Your task to perform on an android device: set default search engine in the chrome app Image 0: 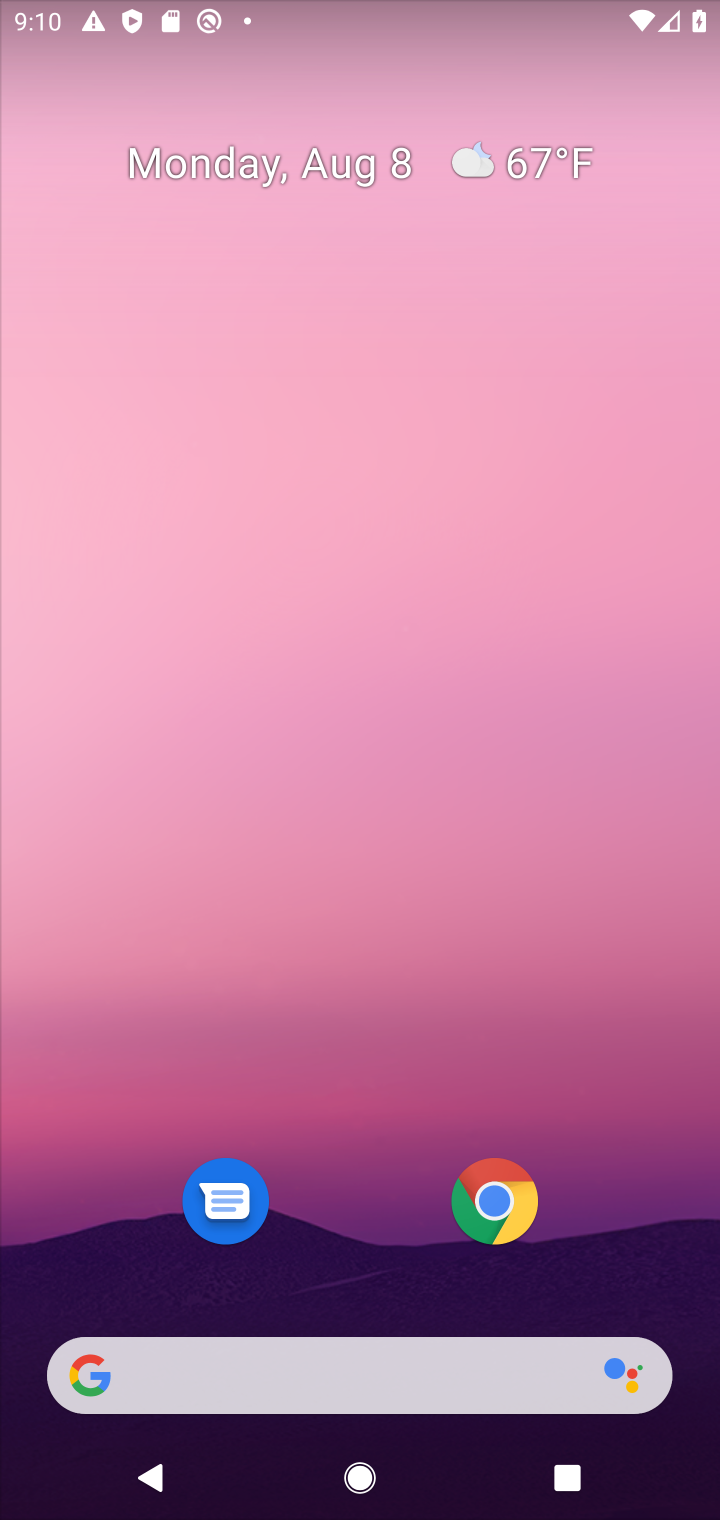
Step 0: press home button
Your task to perform on an android device: set default search engine in the chrome app Image 1: 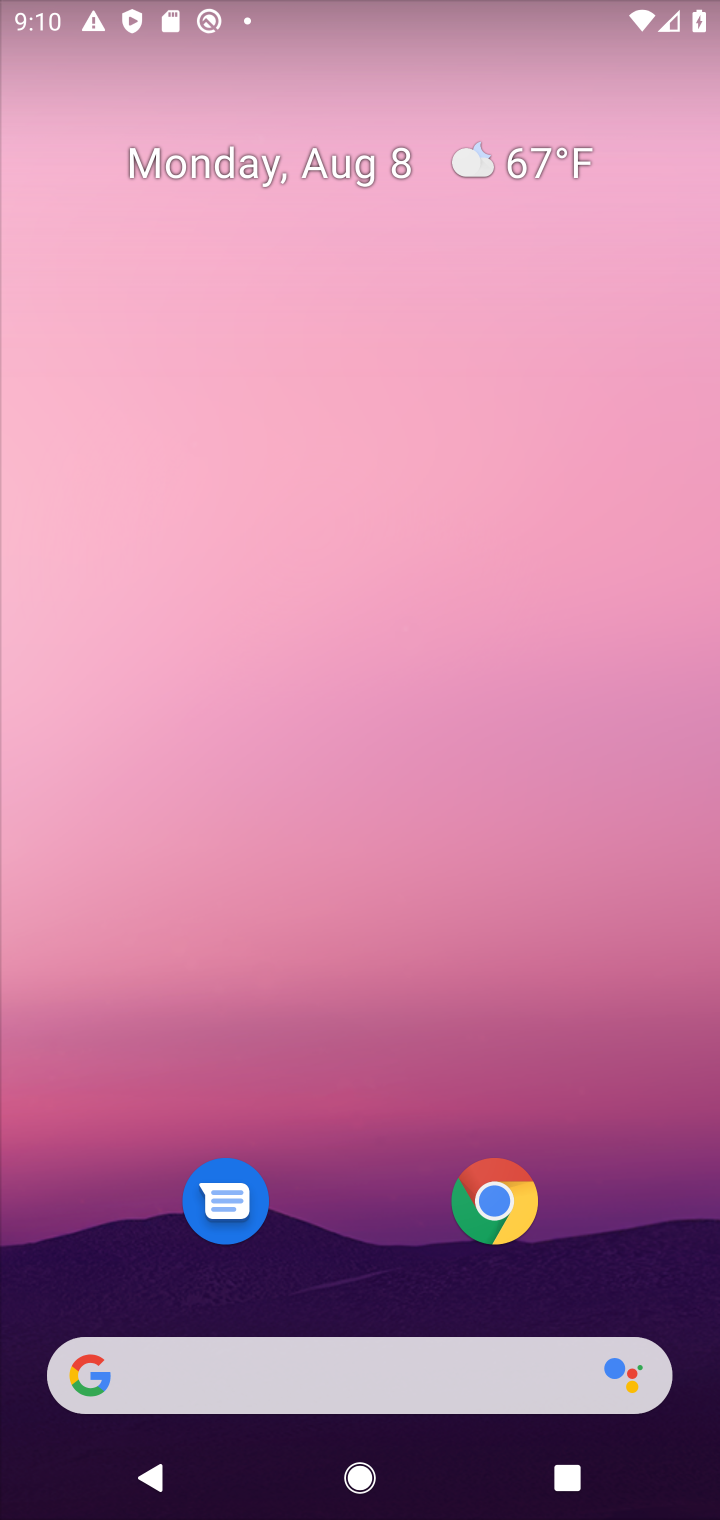
Step 1: drag from (347, 1083) to (342, 501)
Your task to perform on an android device: set default search engine in the chrome app Image 2: 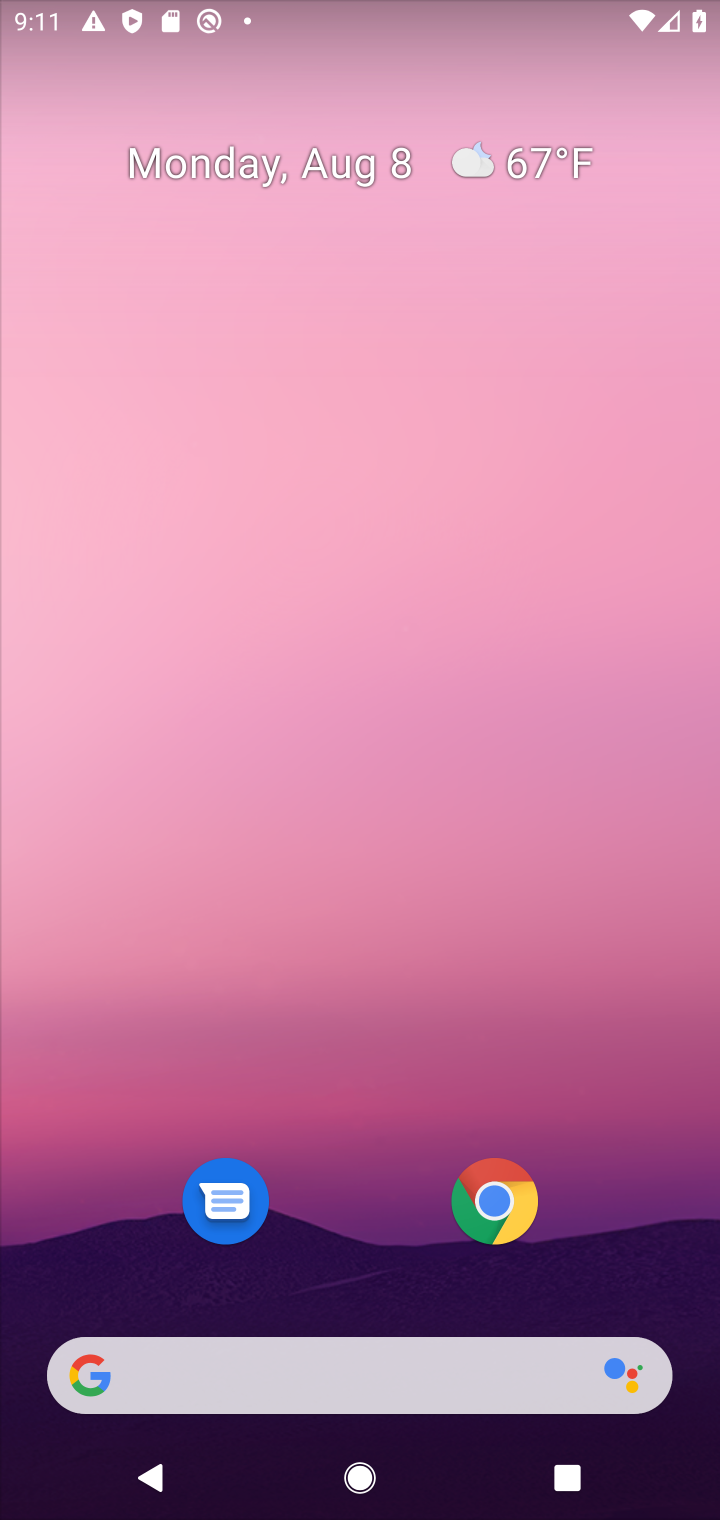
Step 2: drag from (362, 1280) to (368, 317)
Your task to perform on an android device: set default search engine in the chrome app Image 3: 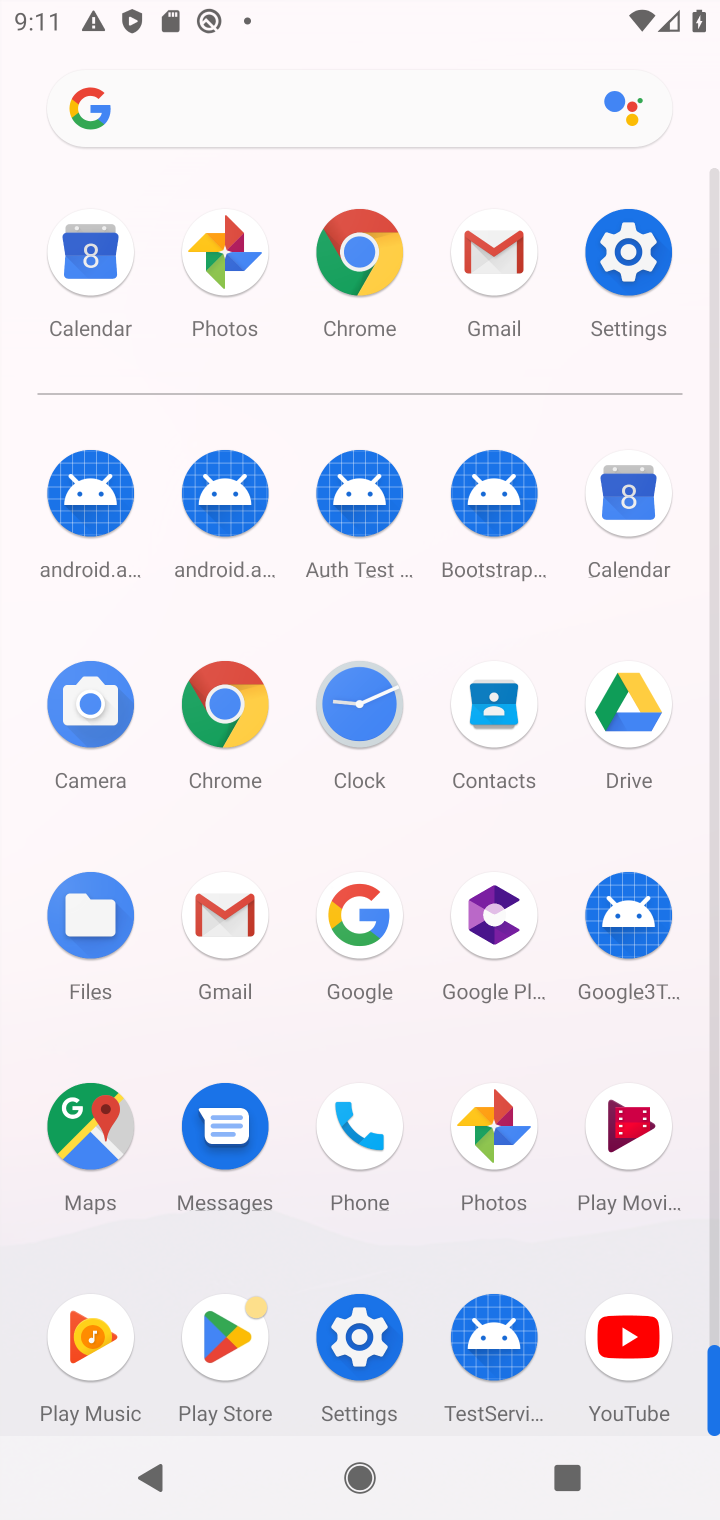
Step 3: click (214, 712)
Your task to perform on an android device: set default search engine in the chrome app Image 4: 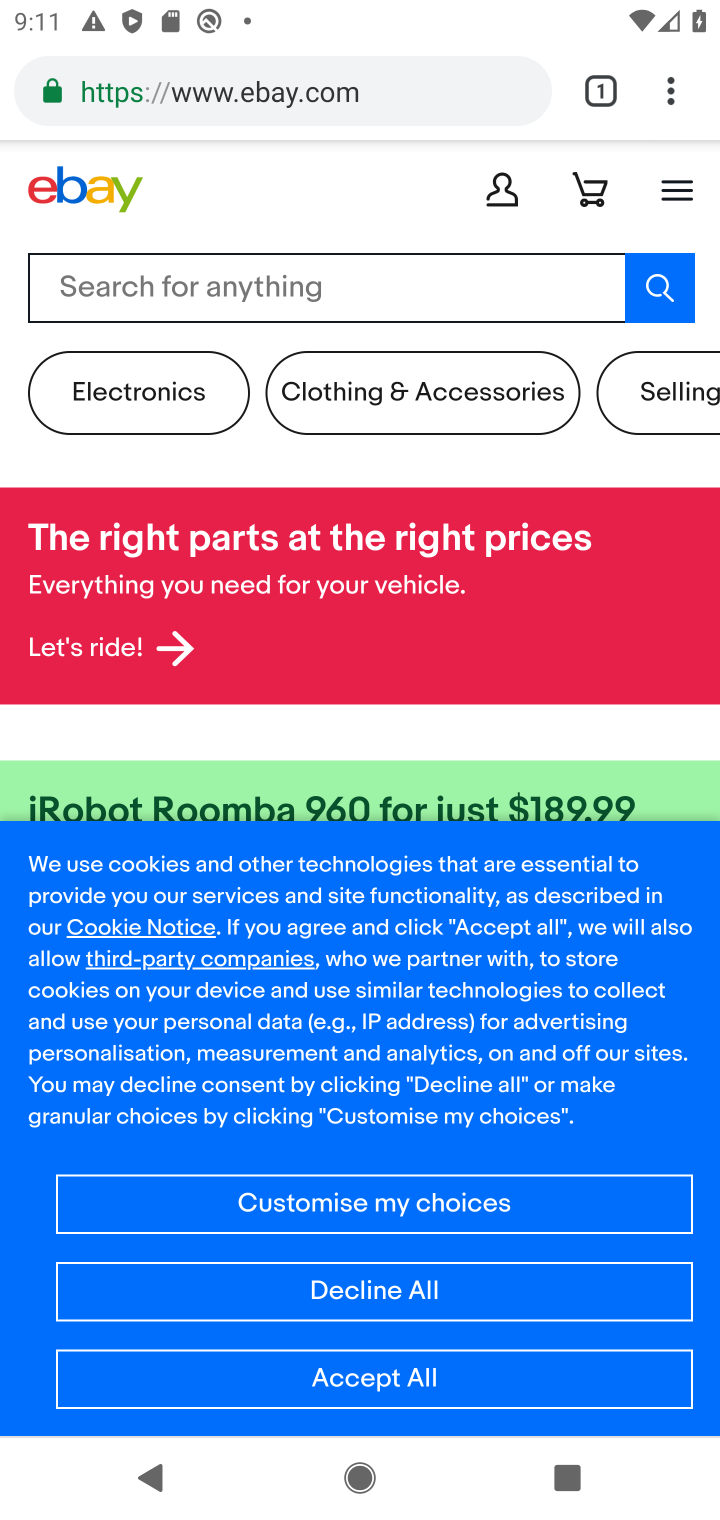
Step 4: click (673, 96)
Your task to perform on an android device: set default search engine in the chrome app Image 5: 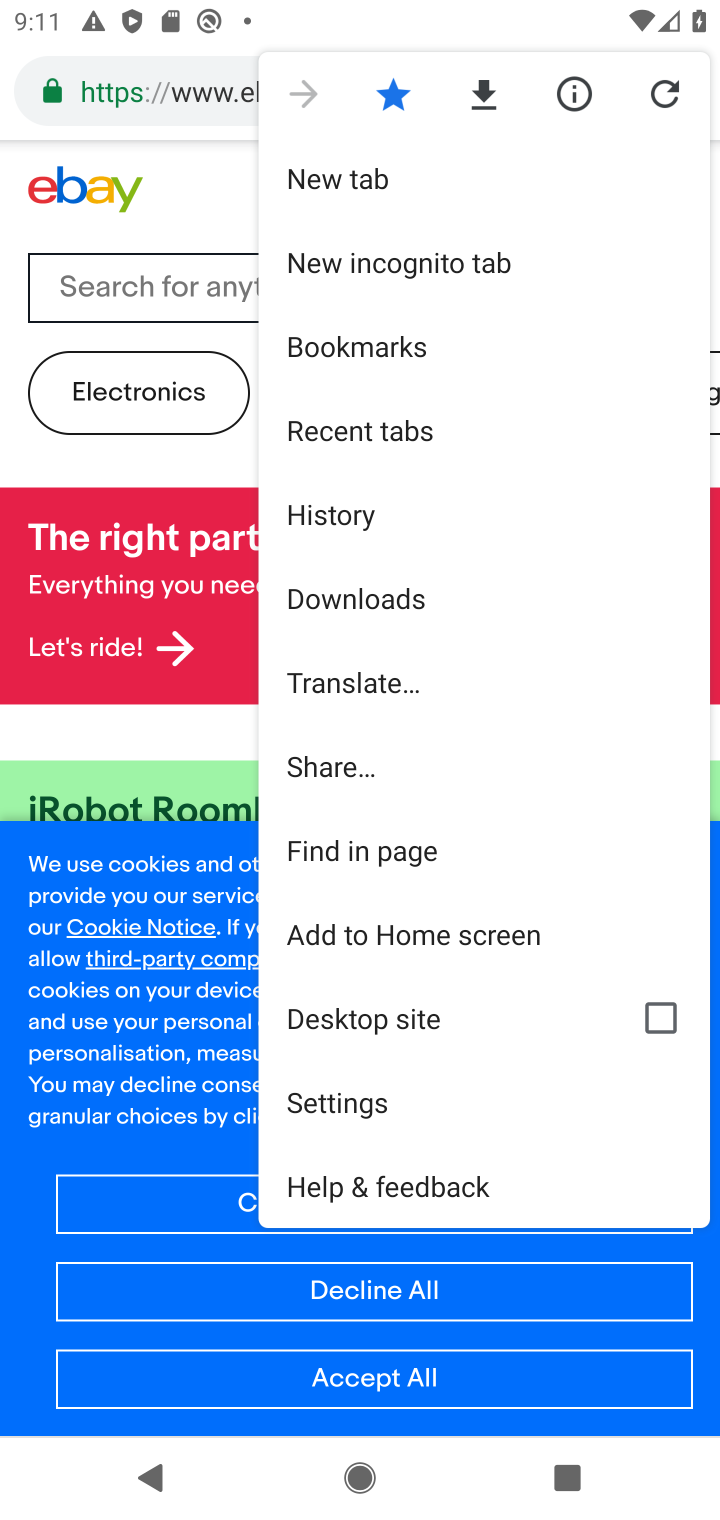
Step 5: click (338, 1101)
Your task to perform on an android device: set default search engine in the chrome app Image 6: 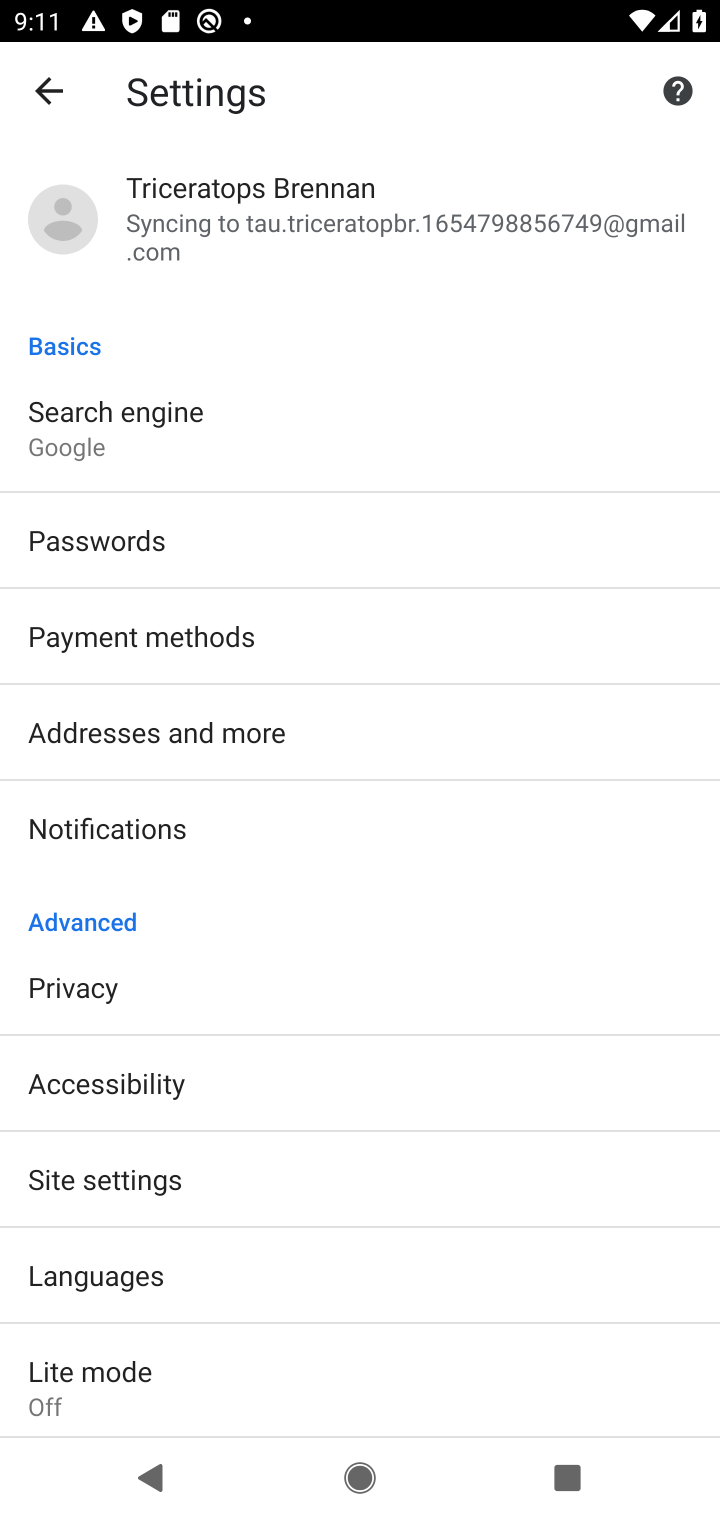
Step 6: click (201, 451)
Your task to perform on an android device: set default search engine in the chrome app Image 7: 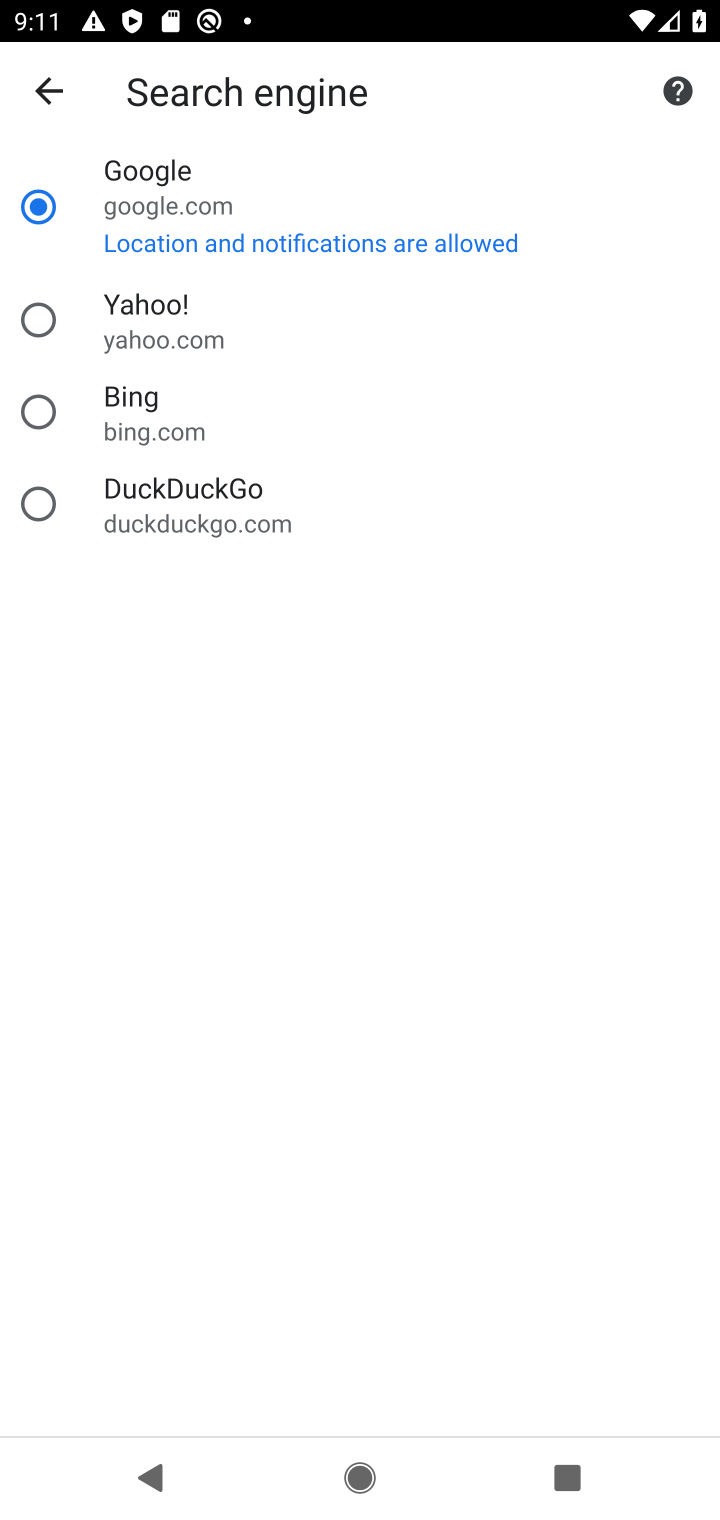
Step 7: click (158, 396)
Your task to perform on an android device: set default search engine in the chrome app Image 8: 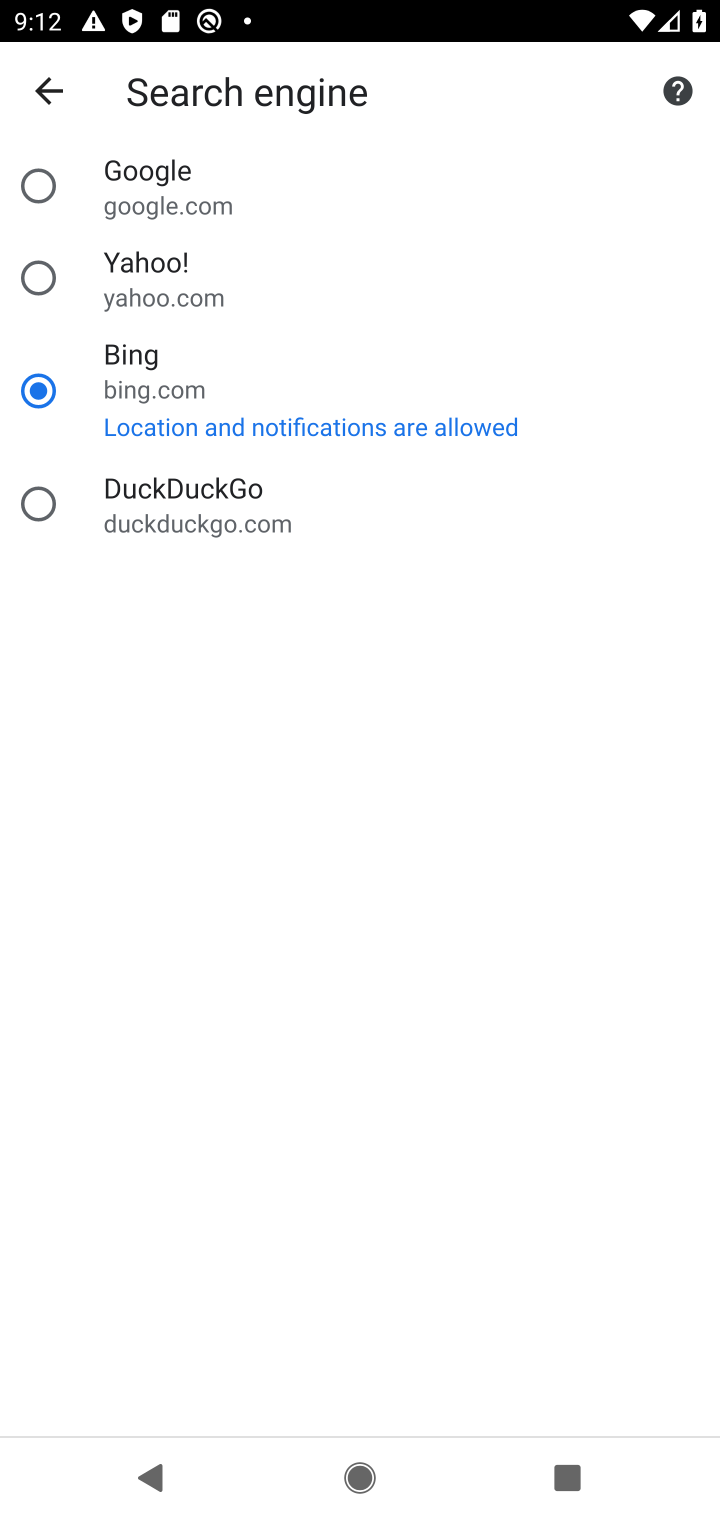
Step 8: task complete